Your task to perform on an android device: Go to Yahoo.com Image 0: 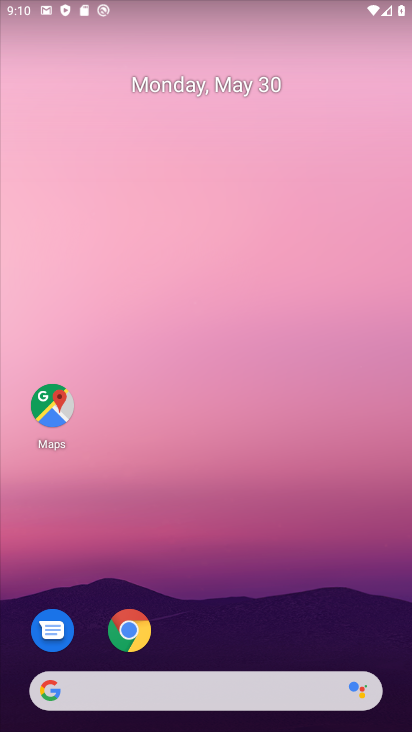
Step 0: click (187, 684)
Your task to perform on an android device: Go to Yahoo.com Image 1: 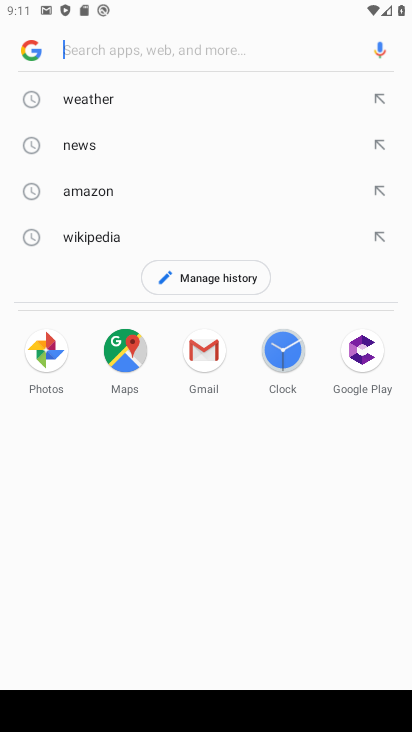
Step 1: type "yahoo.com"
Your task to perform on an android device: Go to Yahoo.com Image 2: 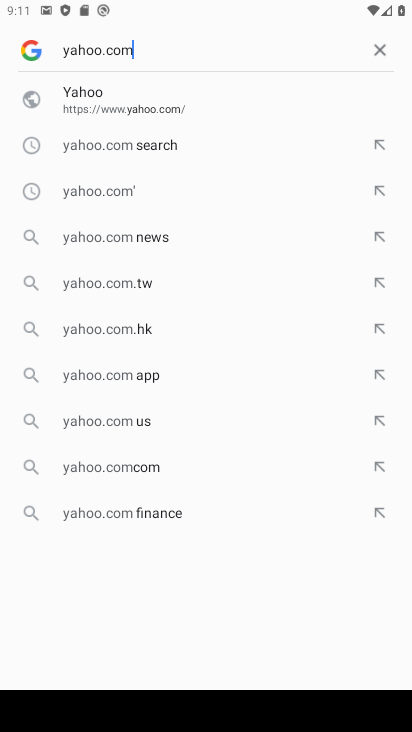
Step 2: click (181, 106)
Your task to perform on an android device: Go to Yahoo.com Image 3: 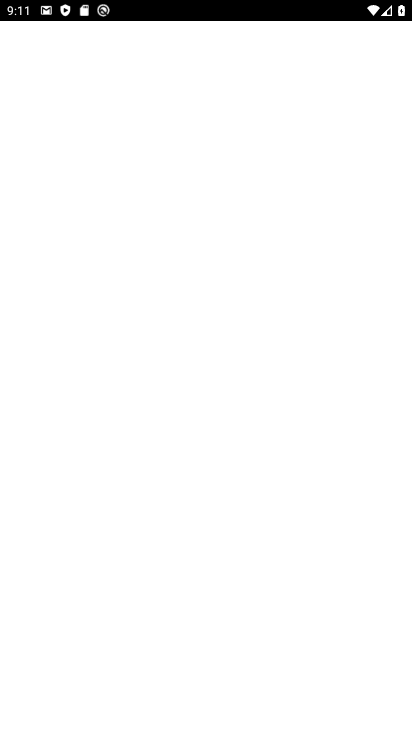
Step 3: task complete